Your task to perform on an android device: Open my contact list Image 0: 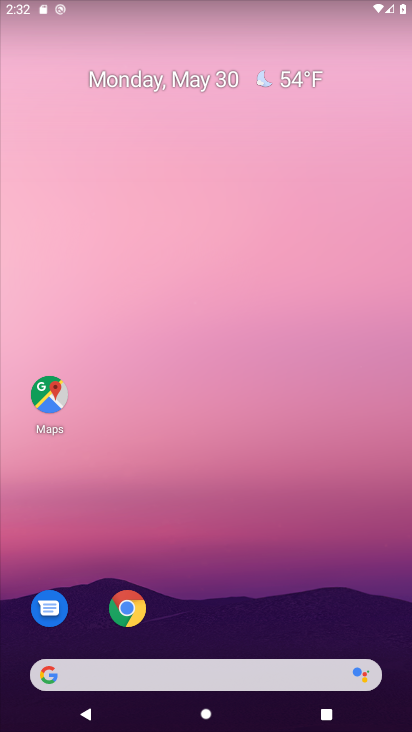
Step 0: drag from (257, 471) to (139, 17)
Your task to perform on an android device: Open my contact list Image 1: 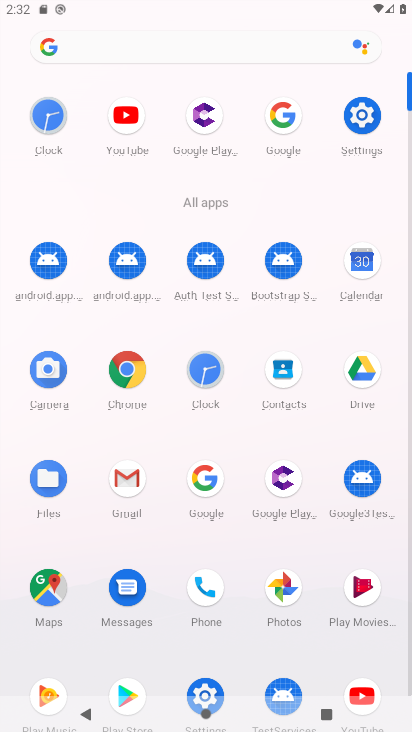
Step 1: click (275, 364)
Your task to perform on an android device: Open my contact list Image 2: 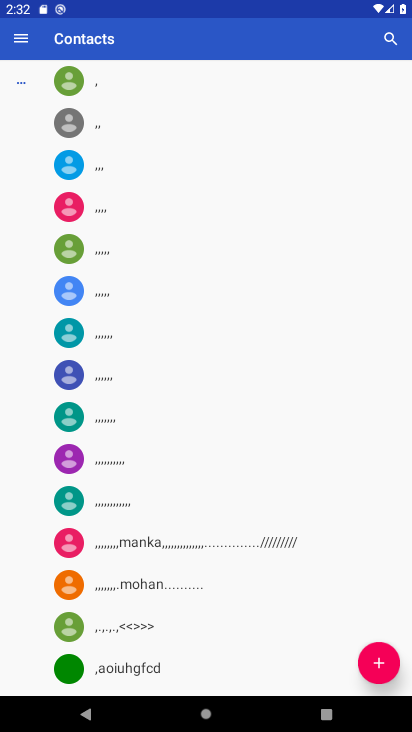
Step 2: task complete